Your task to perform on an android device: Add acer predator to the cart on target.com Image 0: 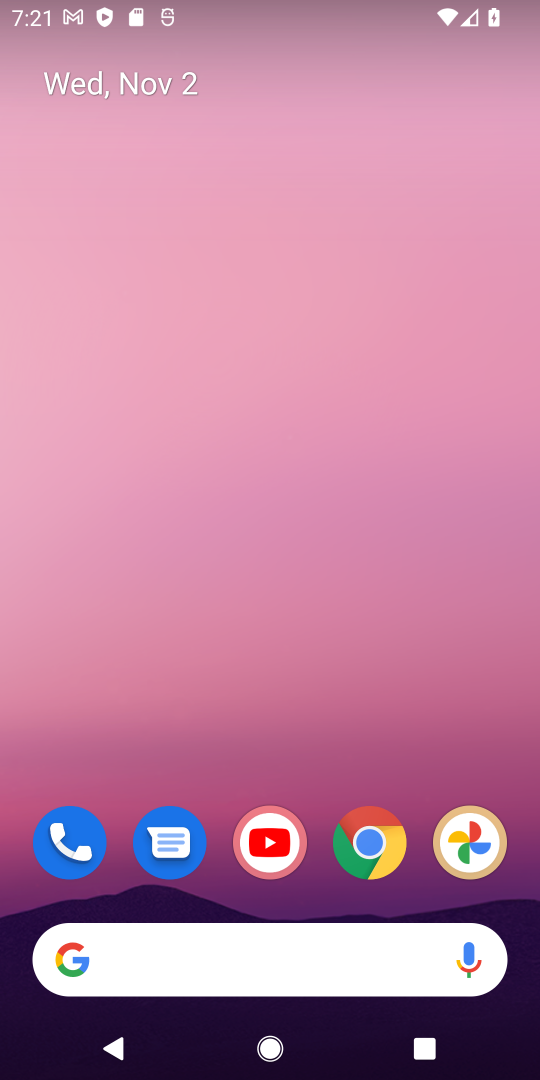
Step 0: drag from (174, 893) to (157, 223)
Your task to perform on an android device: Add acer predator to the cart on target.com Image 1: 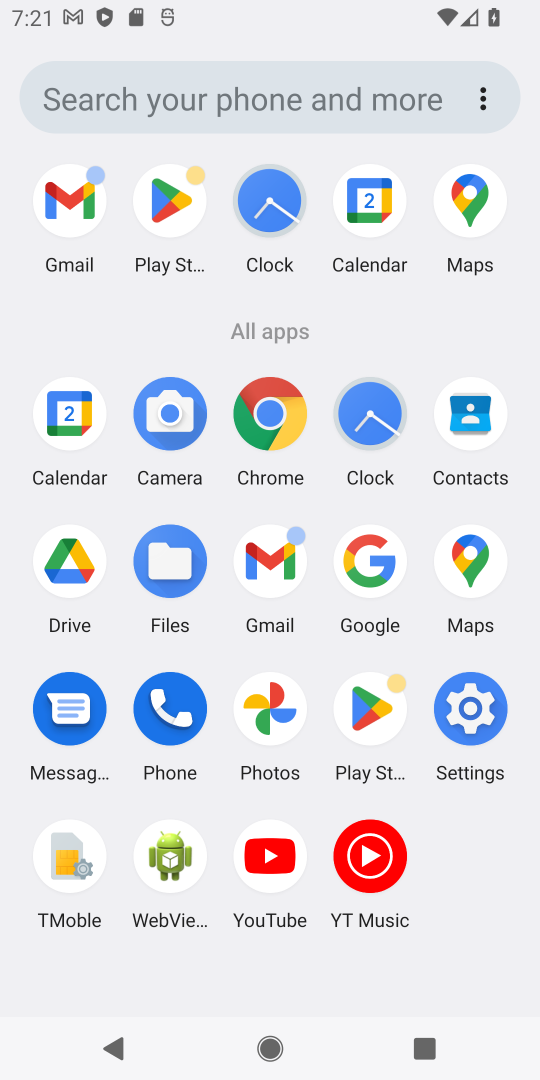
Step 1: click (350, 540)
Your task to perform on an android device: Add acer predator to the cart on target.com Image 2: 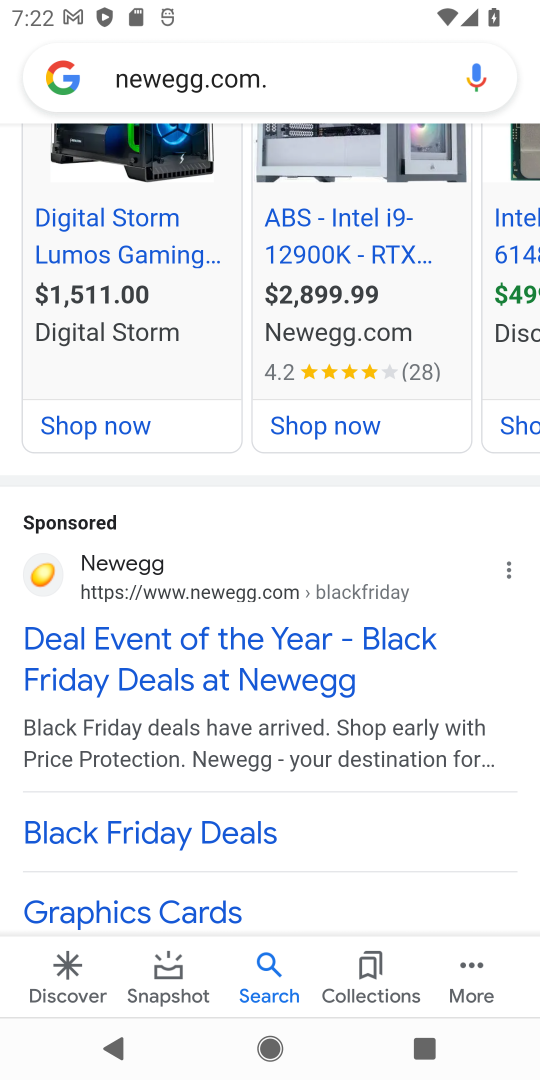
Step 2: click (37, 581)
Your task to perform on an android device: Add acer predator to the cart on target.com Image 3: 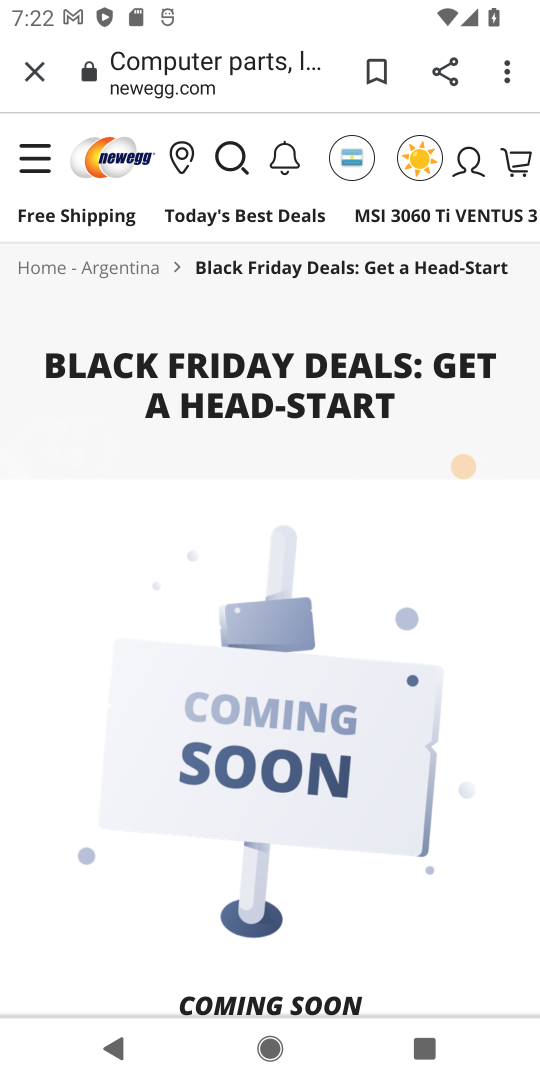
Step 3: press back button
Your task to perform on an android device: Add acer predator to the cart on target.com Image 4: 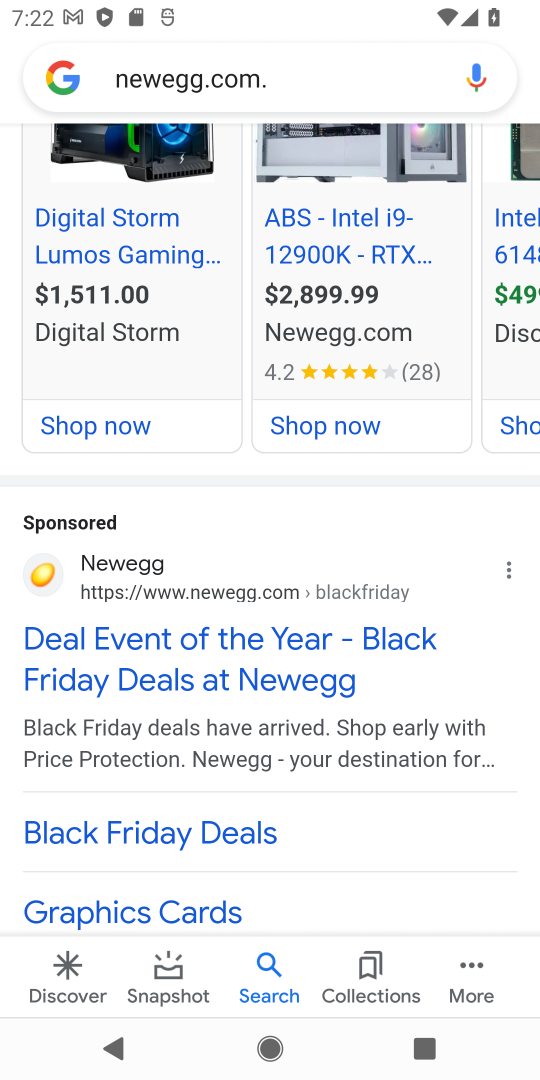
Step 4: click (274, 61)
Your task to perform on an android device: Add acer predator to the cart on target.com Image 5: 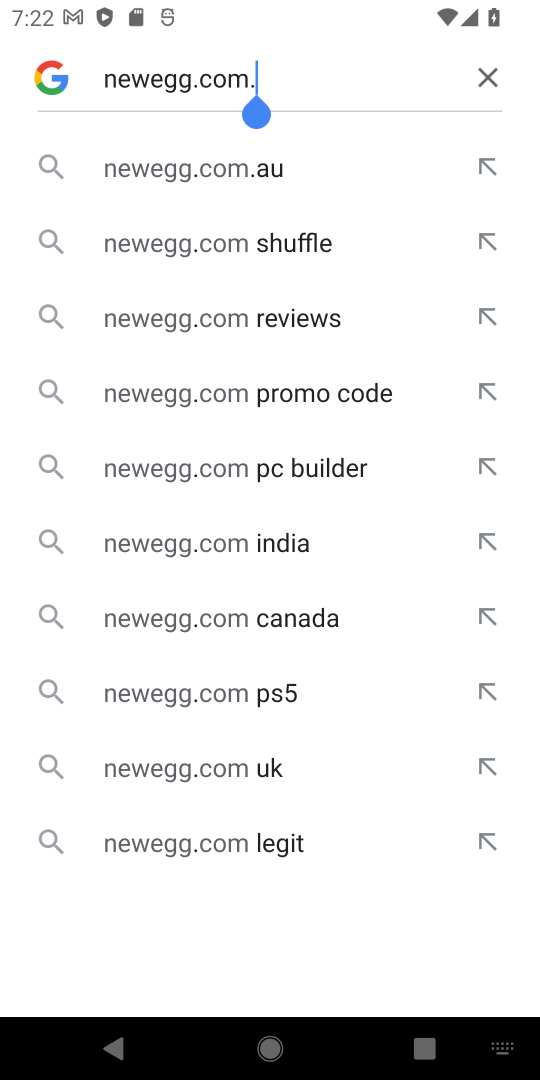
Step 5: click (497, 77)
Your task to perform on an android device: Add acer predator to the cart on target.com Image 6: 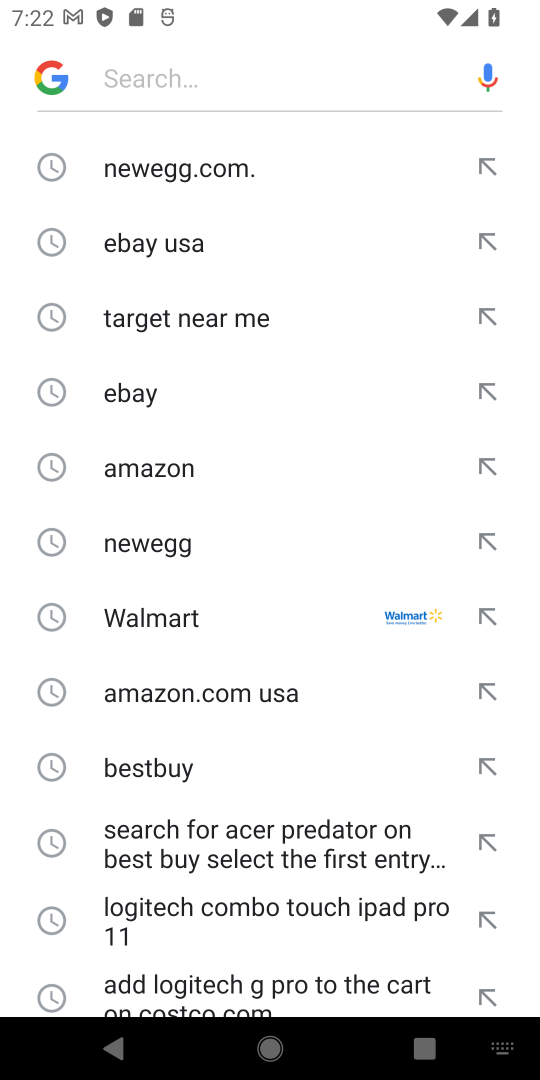
Step 6: click (206, 77)
Your task to perform on an android device: Add acer predator to the cart on target.com Image 7: 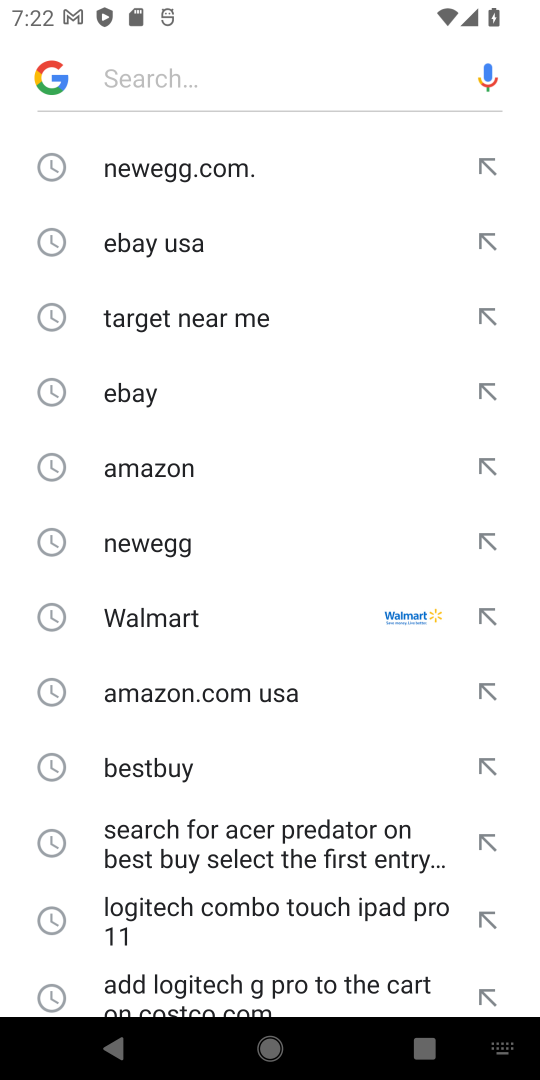
Step 7: type "target "
Your task to perform on an android device: Add acer predator to the cart on target.com Image 8: 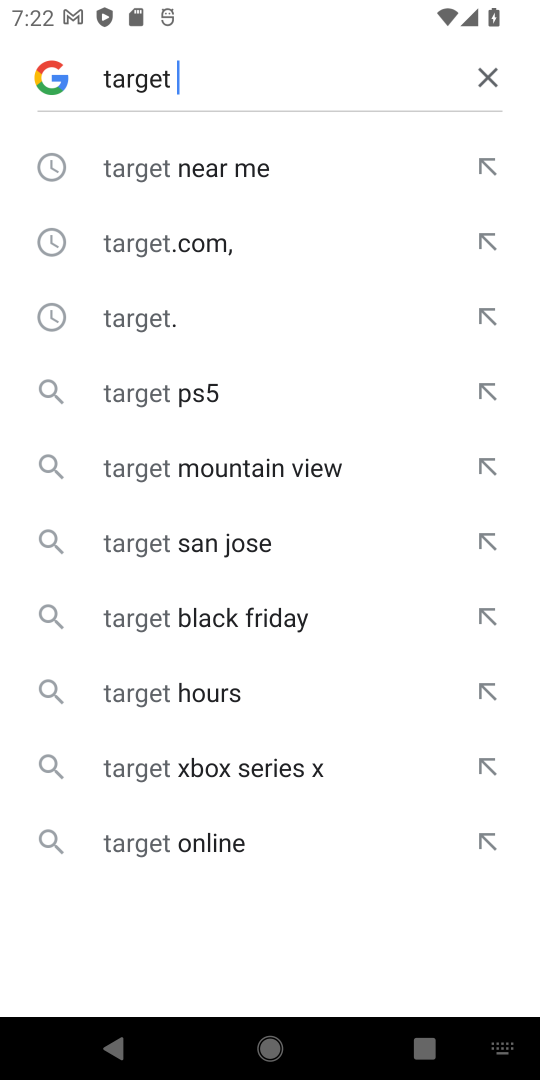
Step 8: click (178, 172)
Your task to perform on an android device: Add acer predator to the cart on target.com Image 9: 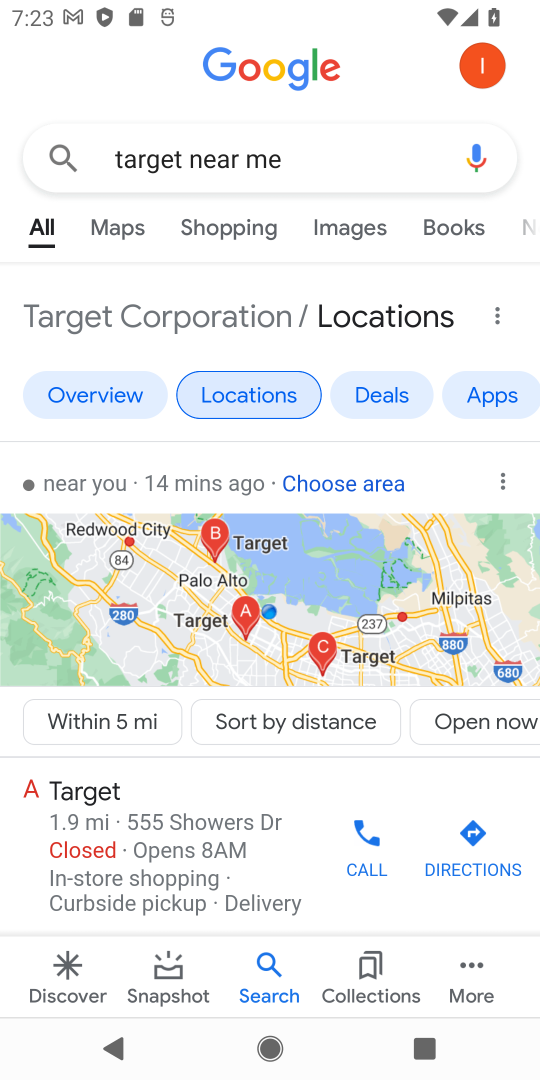
Step 9: drag from (161, 676) to (216, 295)
Your task to perform on an android device: Add acer predator to the cart on target.com Image 10: 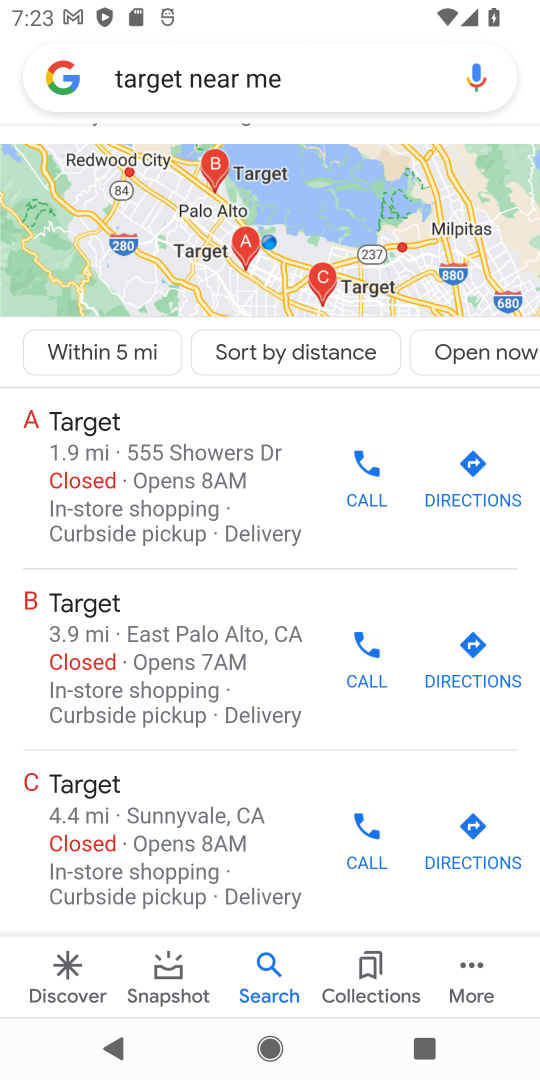
Step 10: drag from (62, 804) to (189, 405)
Your task to perform on an android device: Add acer predator to the cart on target.com Image 11: 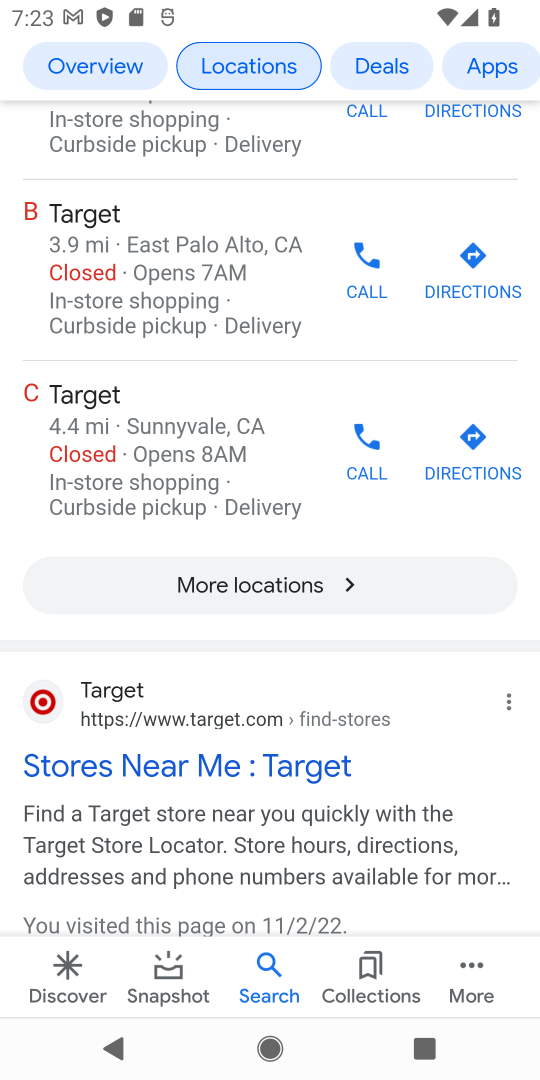
Step 11: click (49, 711)
Your task to perform on an android device: Add acer predator to the cart on target.com Image 12: 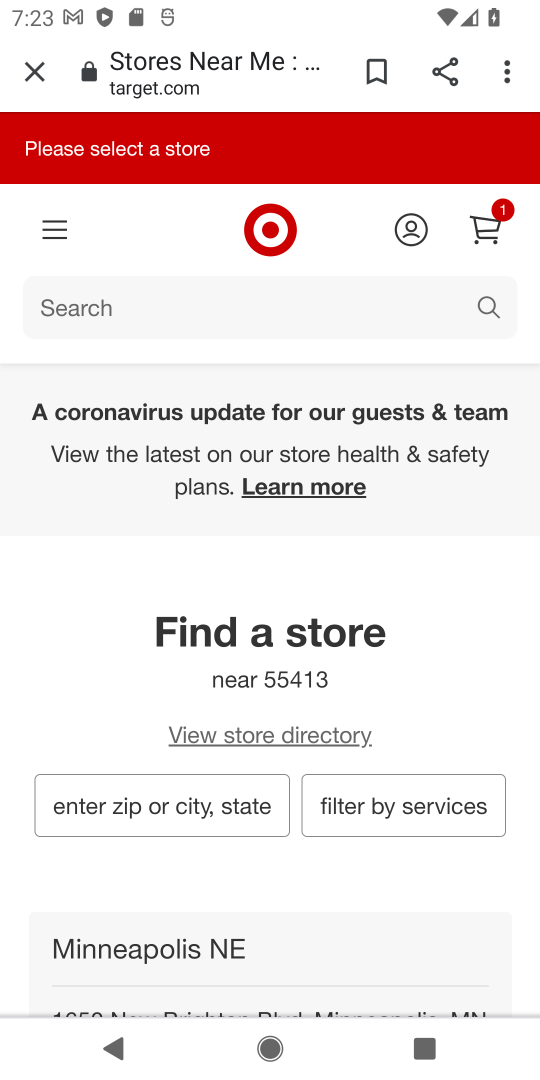
Step 12: click (218, 298)
Your task to perform on an android device: Add acer predator to the cart on target.com Image 13: 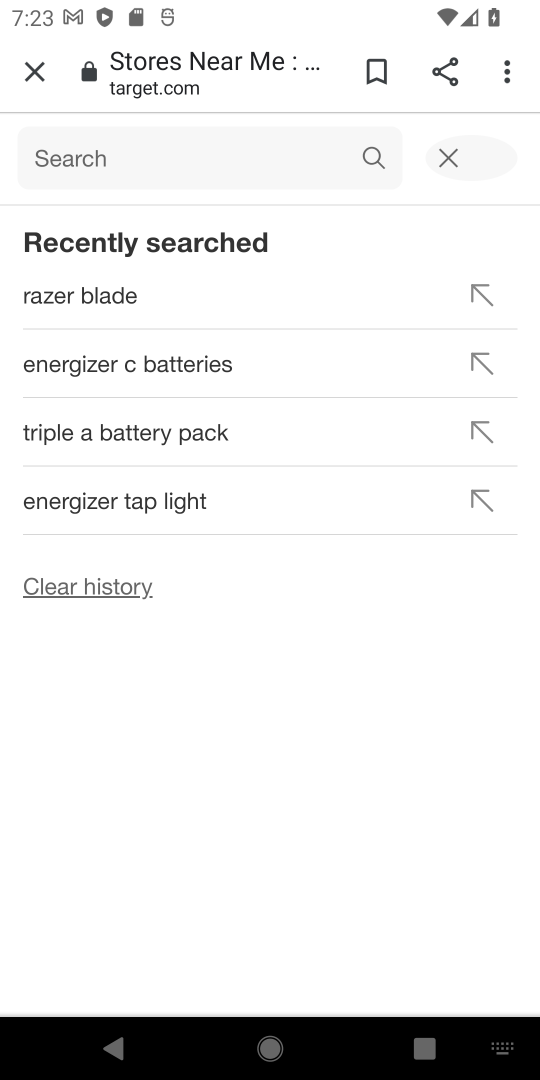
Step 13: click (86, 156)
Your task to perform on an android device: Add acer predator to the cart on target.com Image 14: 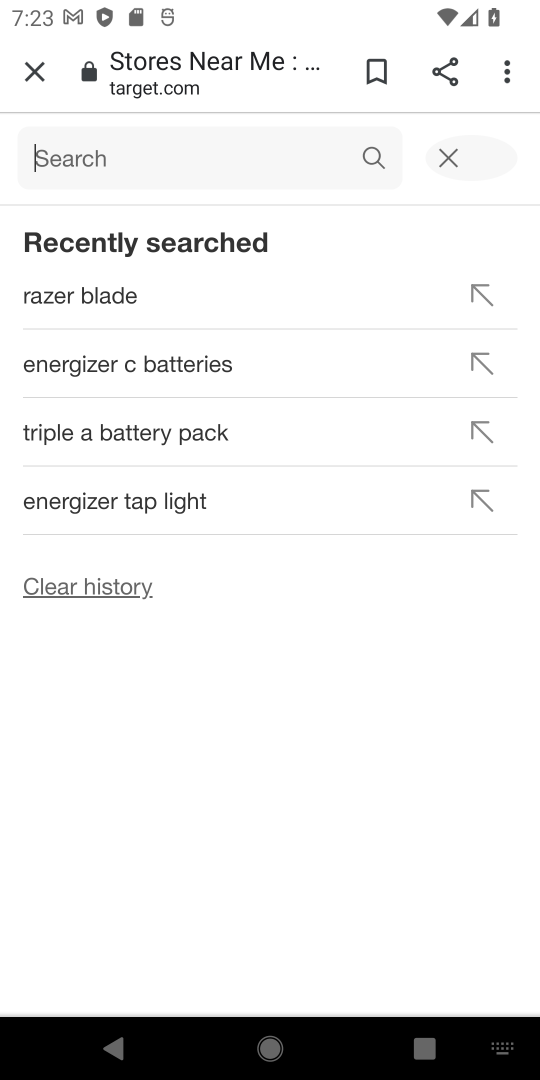
Step 14: click (86, 156)
Your task to perform on an android device: Add acer predator to the cart on target.com Image 15: 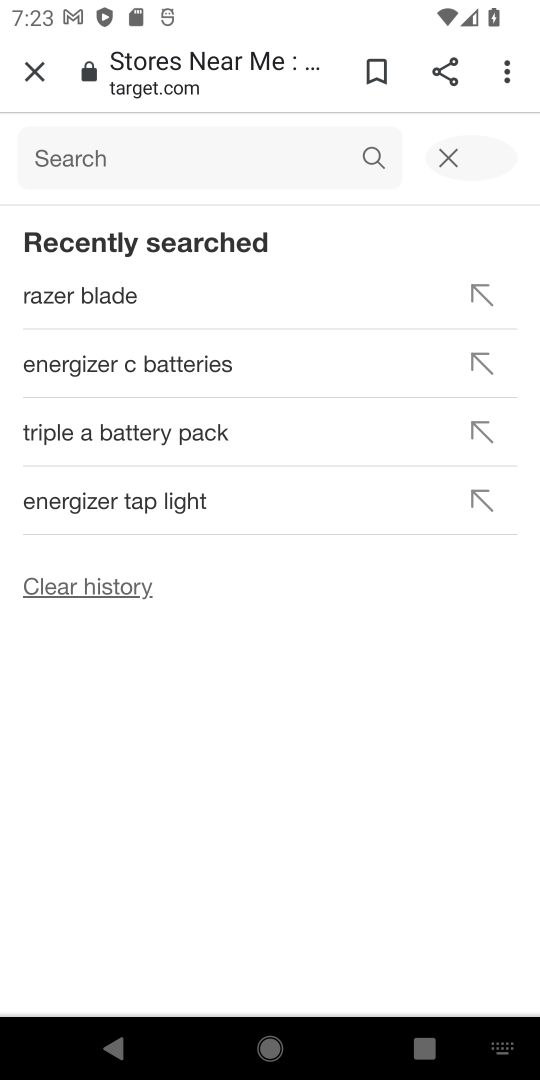
Step 15: type "acer predator "
Your task to perform on an android device: Add acer predator to the cart on target.com Image 16: 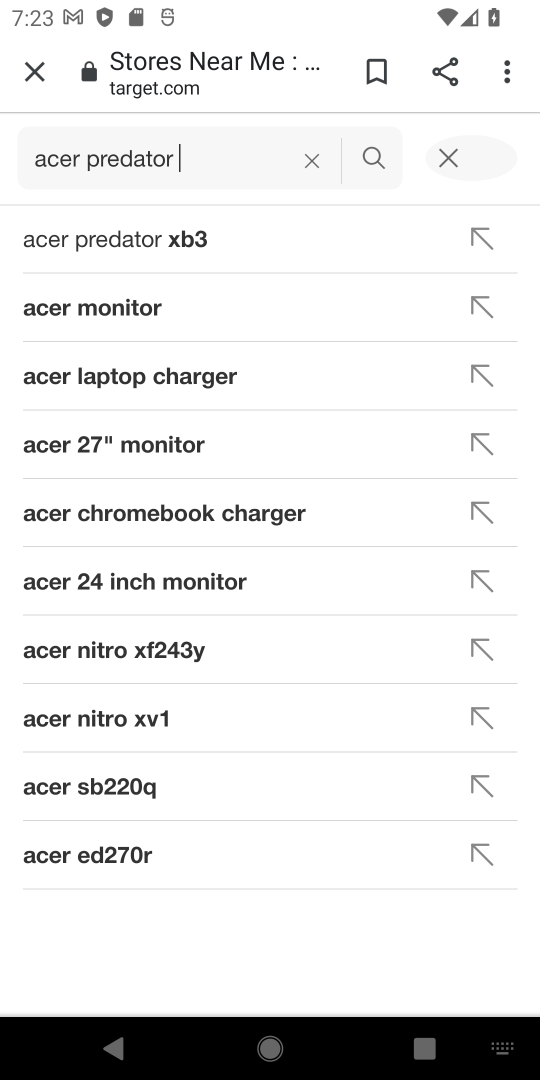
Step 16: click (133, 224)
Your task to perform on an android device: Add acer predator to the cart on target.com Image 17: 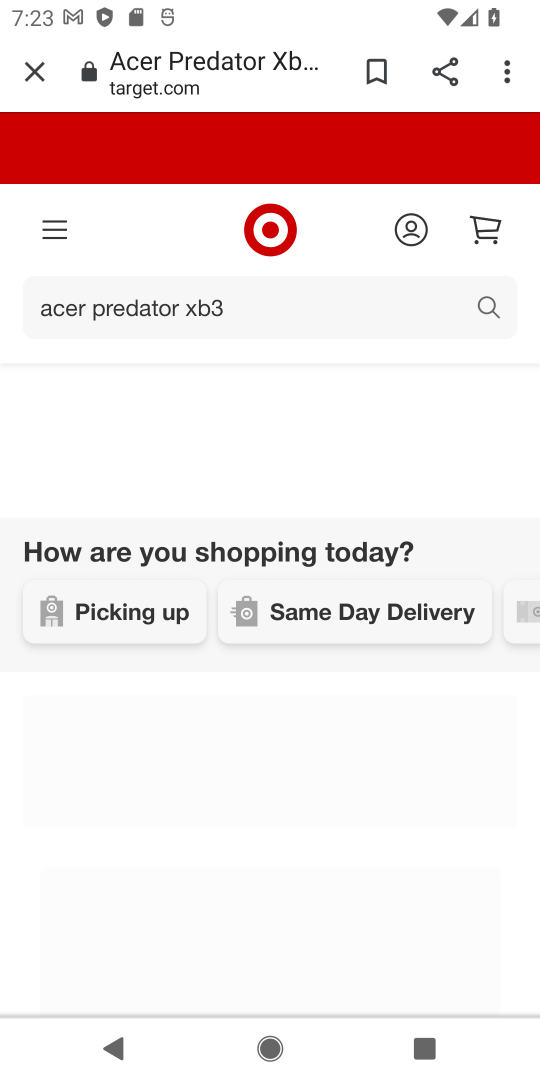
Step 17: drag from (251, 987) to (315, 474)
Your task to perform on an android device: Add acer predator to the cart on target.com Image 18: 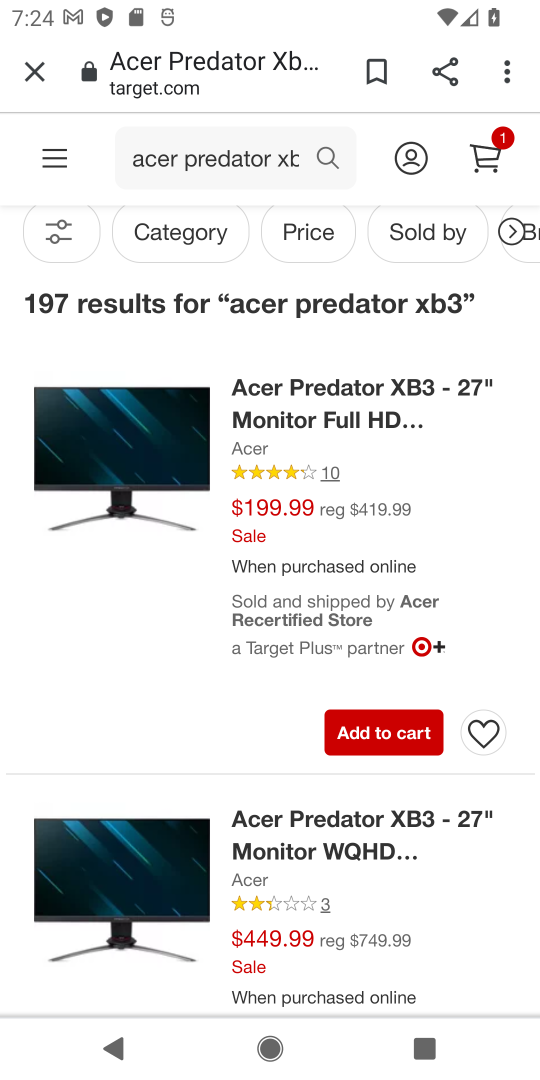
Step 18: click (372, 721)
Your task to perform on an android device: Add acer predator to the cart on target.com Image 19: 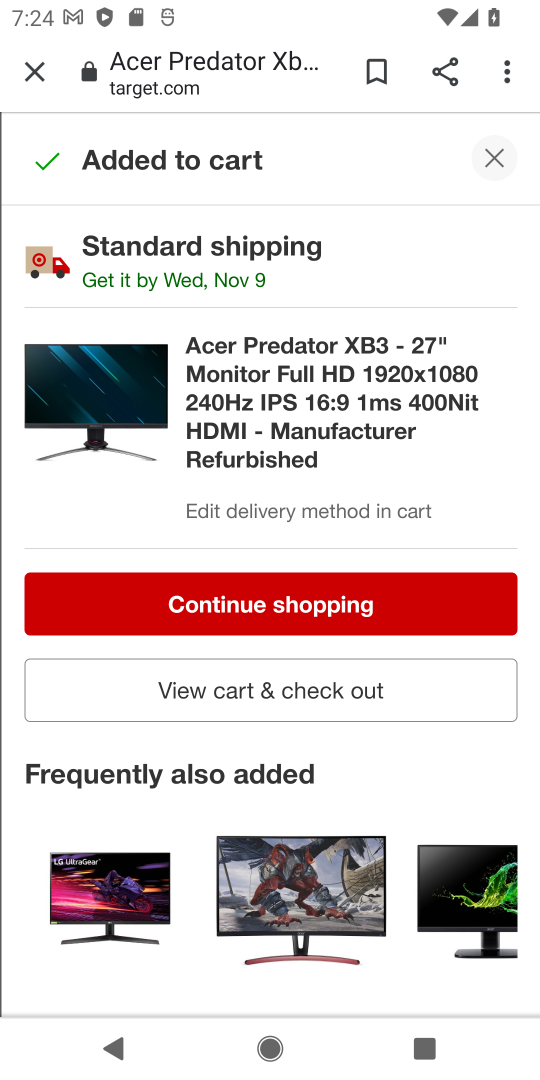
Step 19: task complete